Your task to perform on an android device: check google app version Image 0: 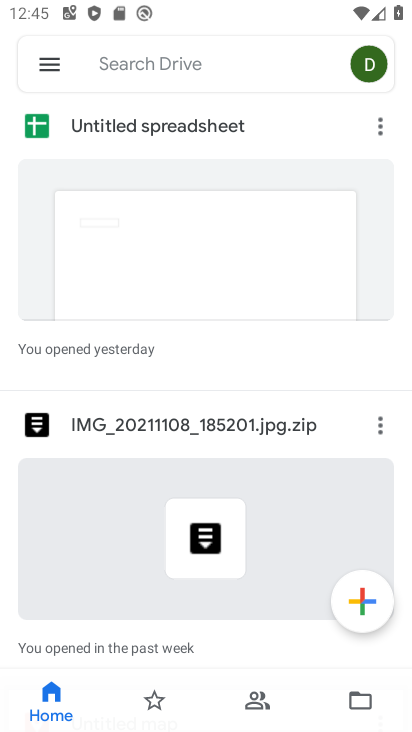
Step 0: press home button
Your task to perform on an android device: check google app version Image 1: 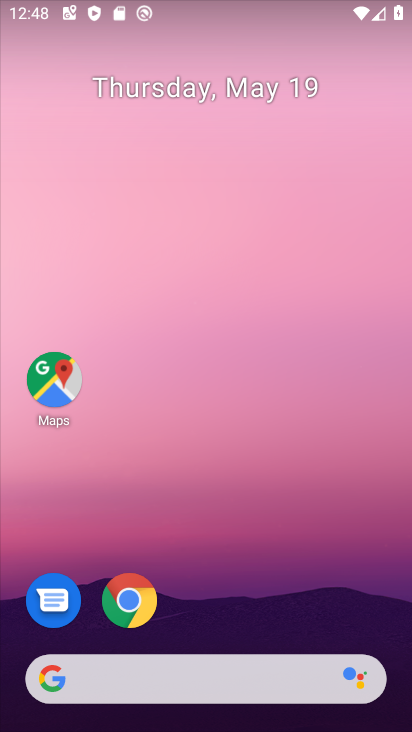
Step 1: click (129, 591)
Your task to perform on an android device: check google app version Image 2: 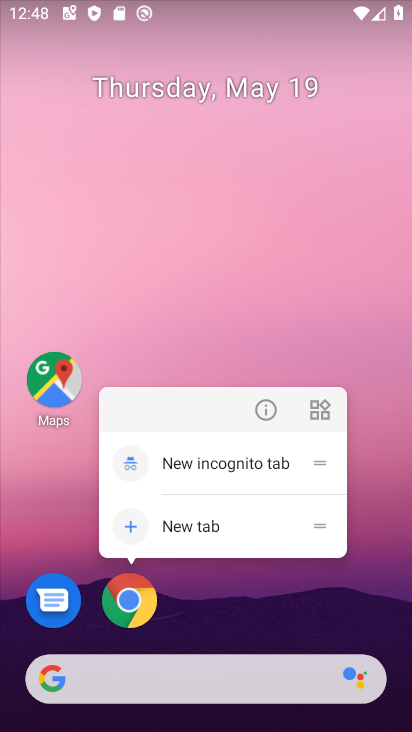
Step 2: click (275, 424)
Your task to perform on an android device: check google app version Image 3: 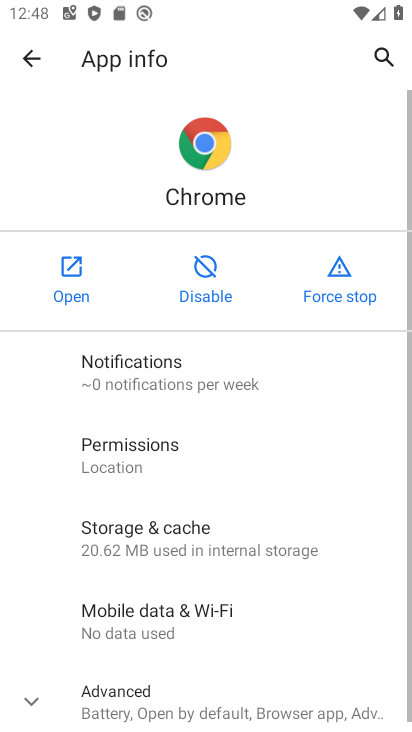
Step 3: drag from (286, 606) to (360, 34)
Your task to perform on an android device: check google app version Image 4: 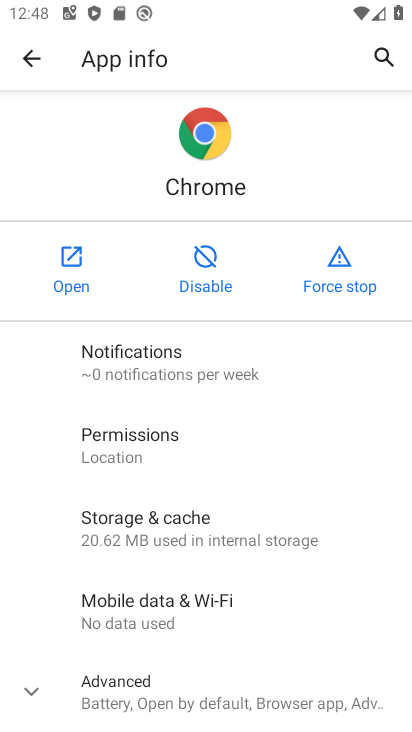
Step 4: click (281, 653)
Your task to perform on an android device: check google app version Image 5: 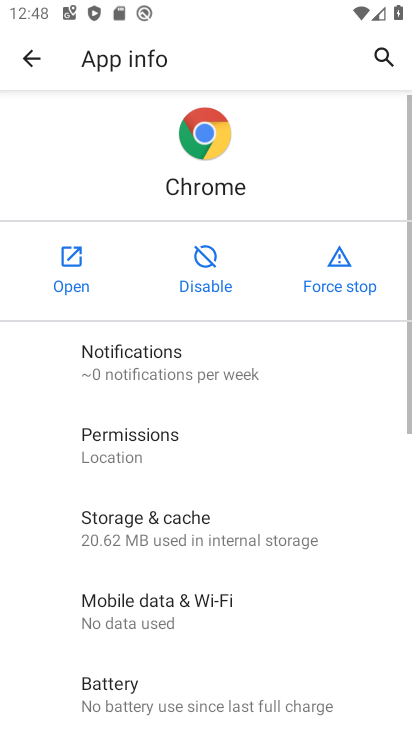
Step 5: task complete